Your task to perform on an android device: Search for "usb-b" on newegg.com, select the first entry, and add it to the cart. Image 0: 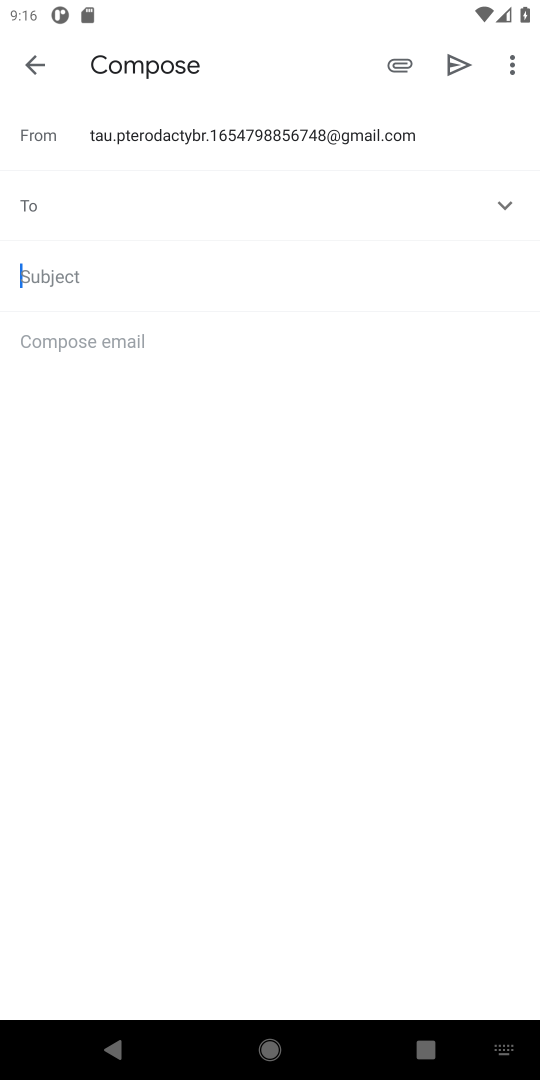
Step 0: press home button
Your task to perform on an android device: Search for "usb-b" on newegg.com, select the first entry, and add it to the cart. Image 1: 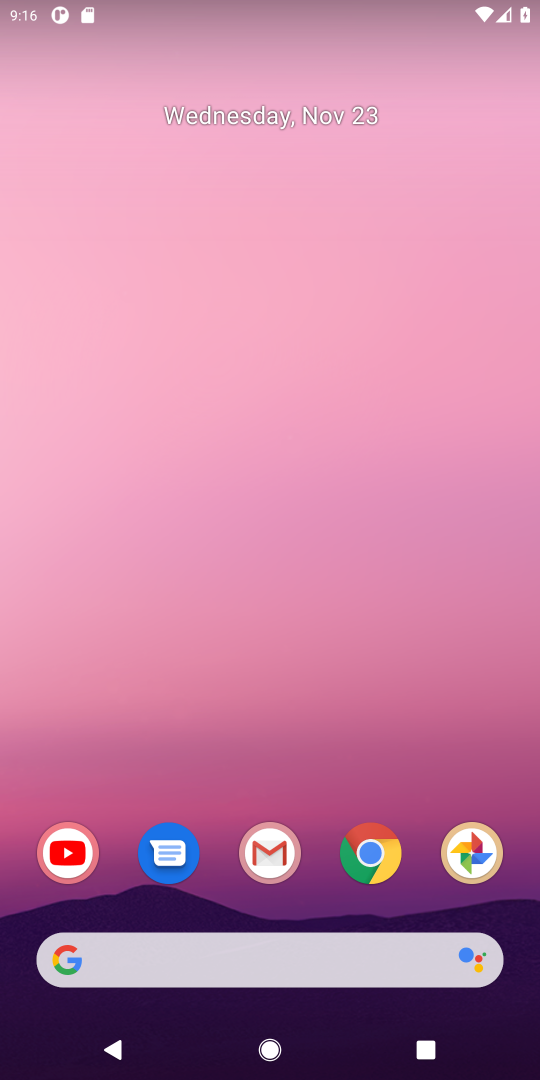
Step 1: click (378, 865)
Your task to perform on an android device: Search for "usb-b" on newegg.com, select the first entry, and add it to the cart. Image 2: 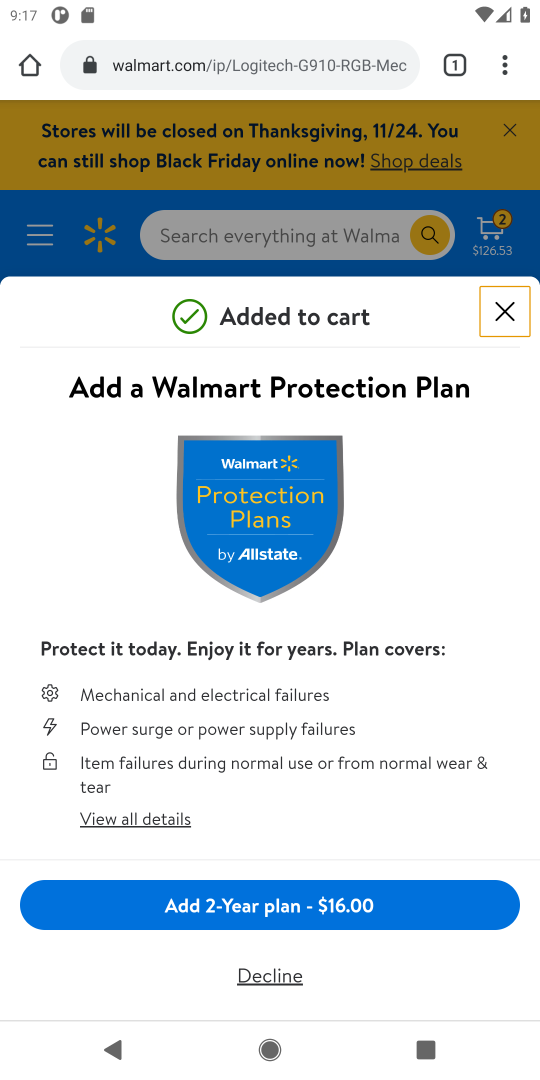
Step 2: click (209, 60)
Your task to perform on an android device: Search for "usb-b" on newegg.com, select the first entry, and add it to the cart. Image 3: 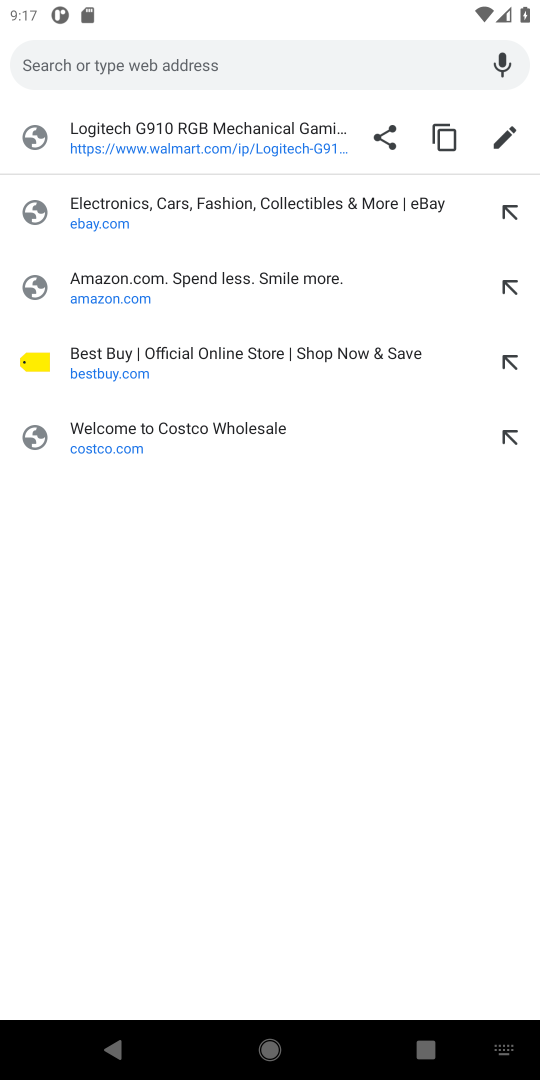
Step 3: type "newegg.com"
Your task to perform on an android device: Search for "usb-b" on newegg.com, select the first entry, and add it to the cart. Image 4: 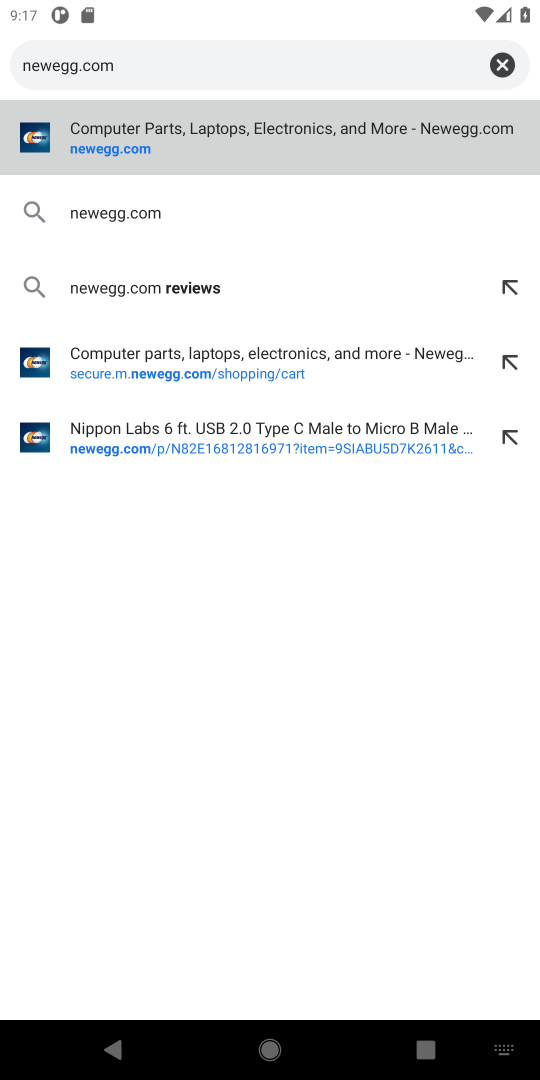
Step 4: click (95, 173)
Your task to perform on an android device: Search for "usb-b" on newegg.com, select the first entry, and add it to the cart. Image 5: 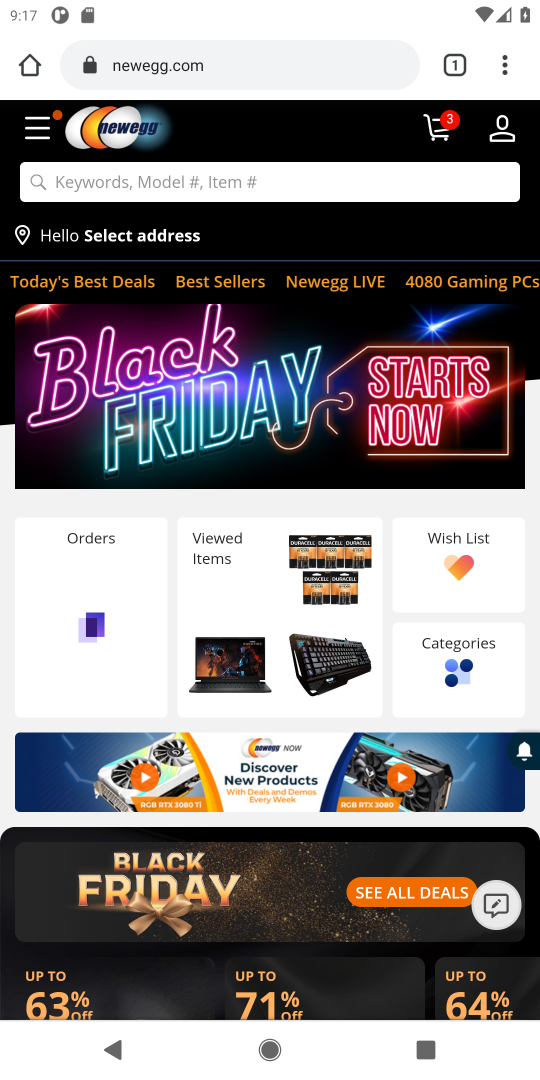
Step 5: click (181, 186)
Your task to perform on an android device: Search for "usb-b" on newegg.com, select the first entry, and add it to the cart. Image 6: 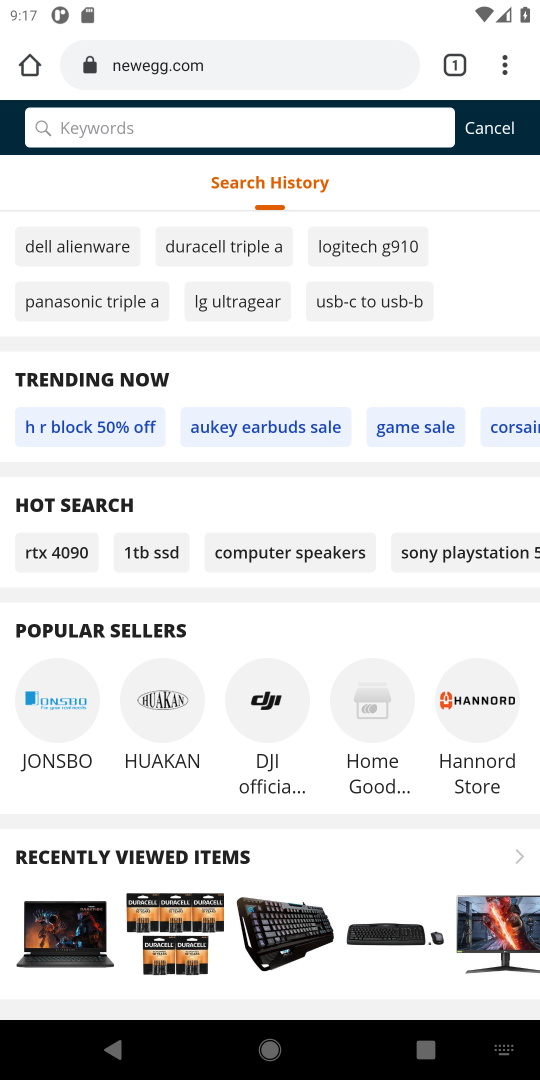
Step 6: type "usb-b"
Your task to perform on an android device: Search for "usb-b" on newegg.com, select the first entry, and add it to the cart. Image 7: 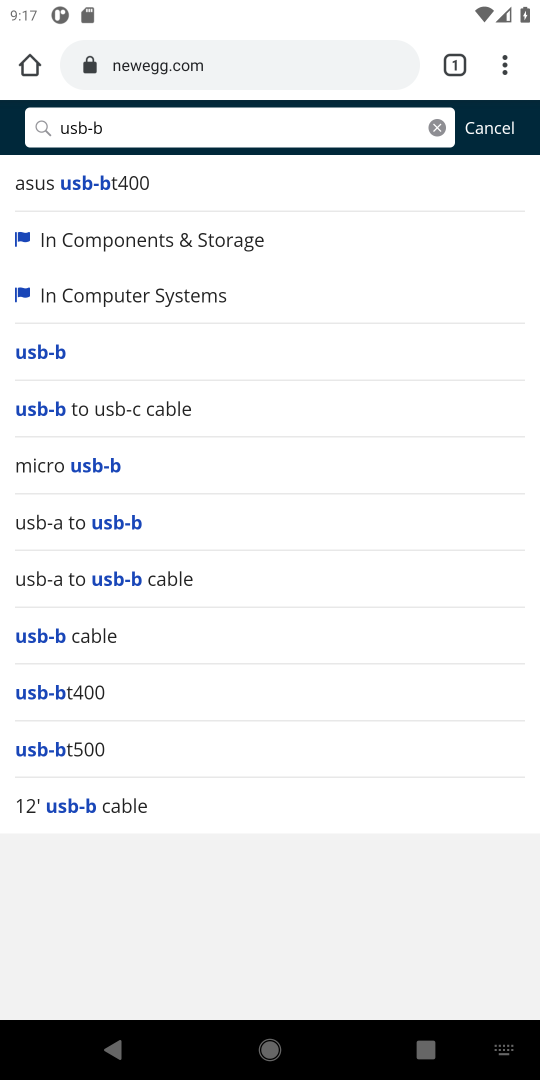
Step 7: click (37, 349)
Your task to perform on an android device: Search for "usb-b" on newegg.com, select the first entry, and add it to the cart. Image 8: 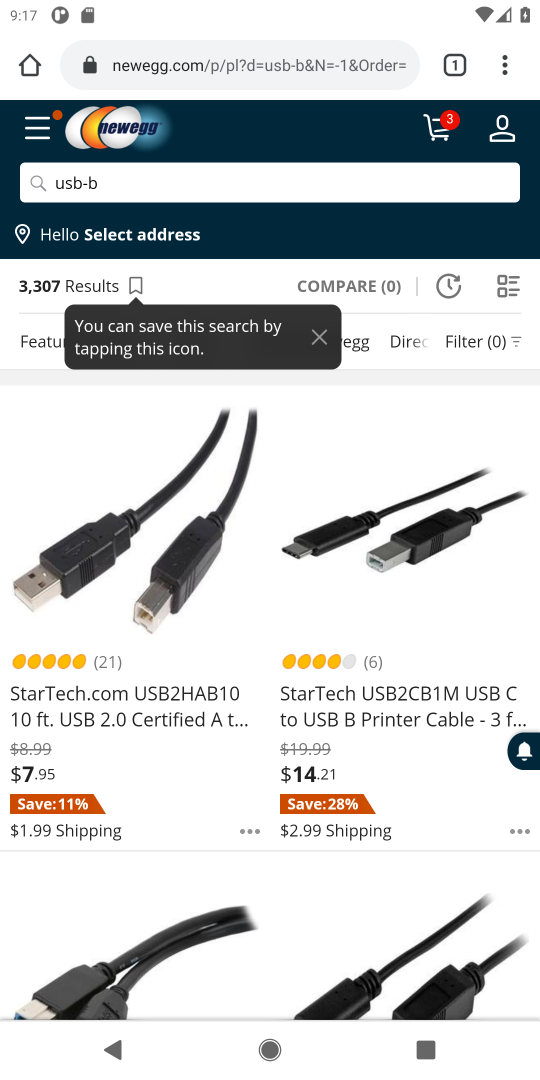
Step 8: click (120, 624)
Your task to perform on an android device: Search for "usb-b" on newegg.com, select the first entry, and add it to the cart. Image 9: 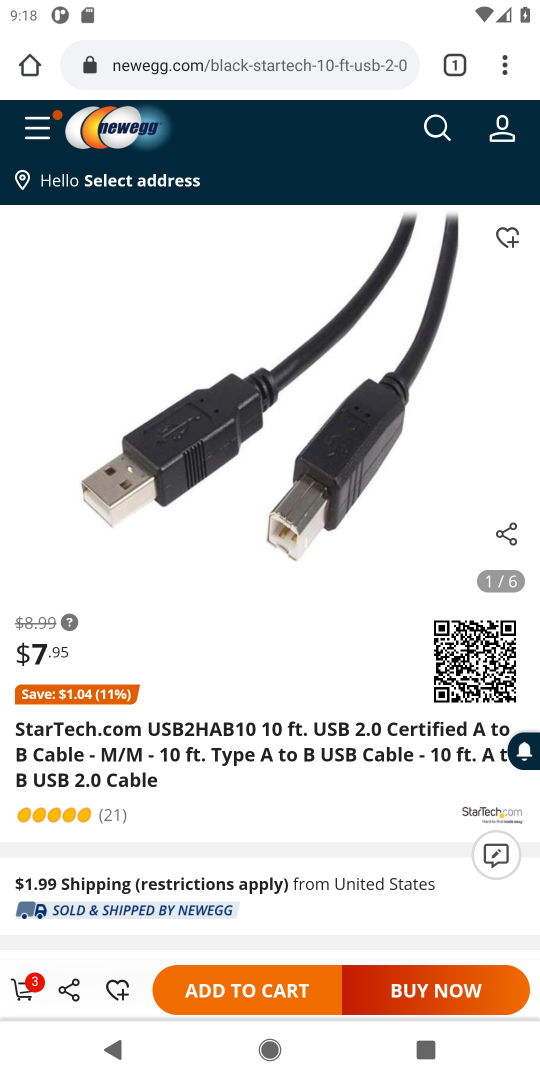
Step 9: click (227, 995)
Your task to perform on an android device: Search for "usb-b" on newegg.com, select the first entry, and add it to the cart. Image 10: 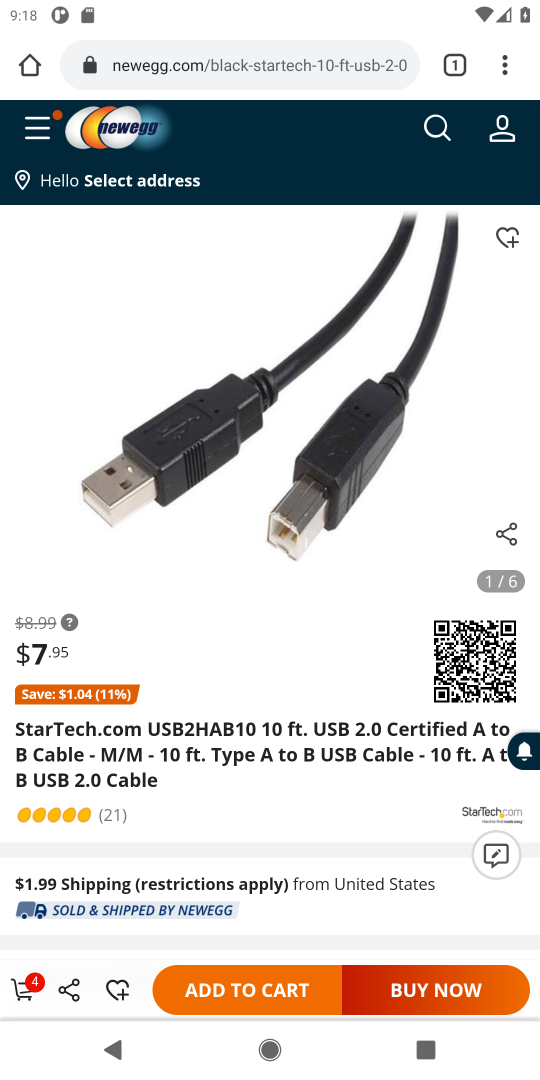
Step 10: task complete